Your task to perform on an android device: turn notification dots off Image 0: 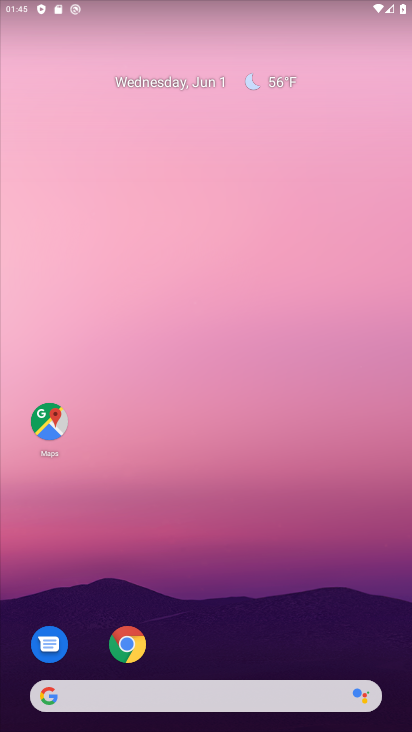
Step 0: drag from (201, 663) to (189, 507)
Your task to perform on an android device: turn notification dots off Image 1: 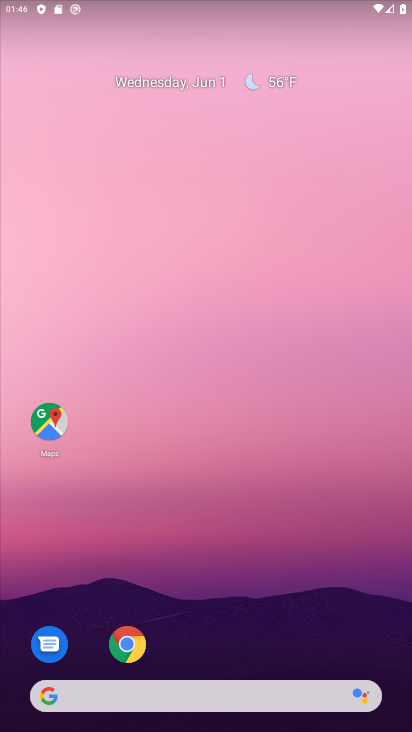
Step 1: drag from (232, 672) to (230, 263)
Your task to perform on an android device: turn notification dots off Image 2: 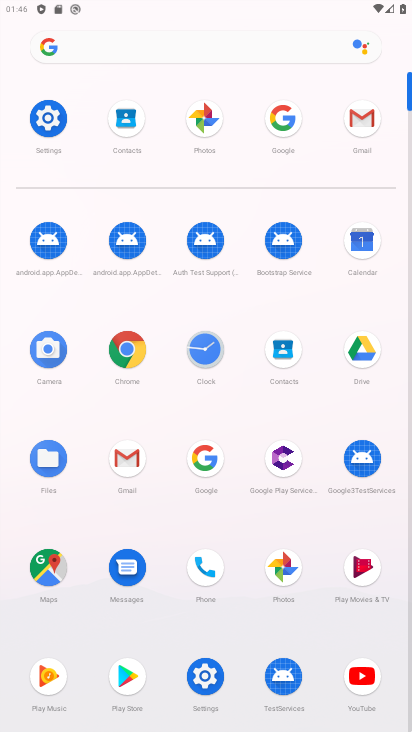
Step 2: click (54, 121)
Your task to perform on an android device: turn notification dots off Image 3: 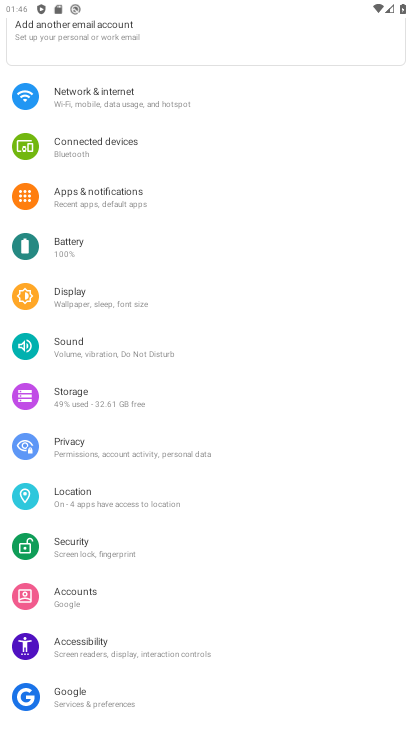
Step 3: click (111, 182)
Your task to perform on an android device: turn notification dots off Image 4: 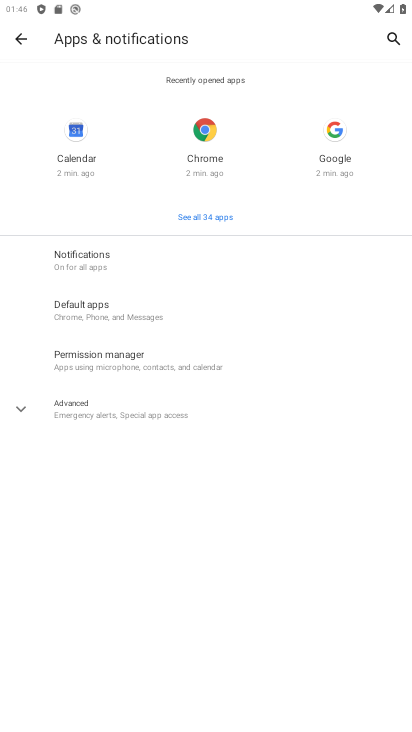
Step 4: click (70, 257)
Your task to perform on an android device: turn notification dots off Image 5: 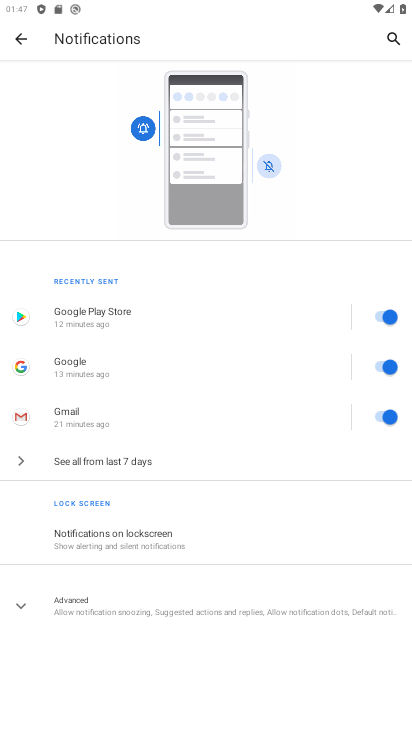
Step 5: click (68, 604)
Your task to perform on an android device: turn notification dots off Image 6: 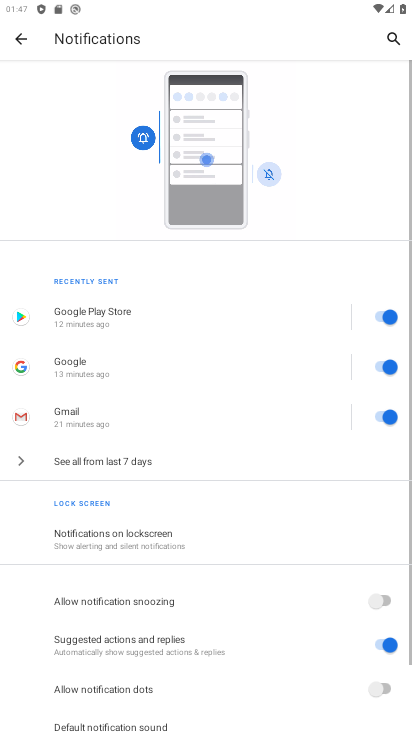
Step 6: task complete